Your task to perform on an android device: What's the weather going to be this weekend? Image 0: 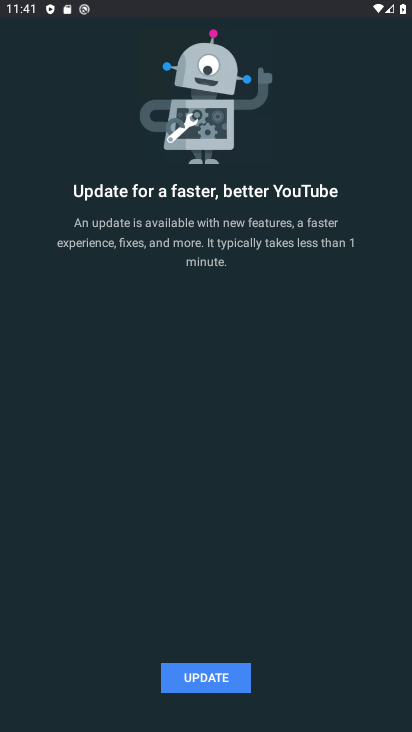
Step 0: press home button
Your task to perform on an android device: What's the weather going to be this weekend? Image 1: 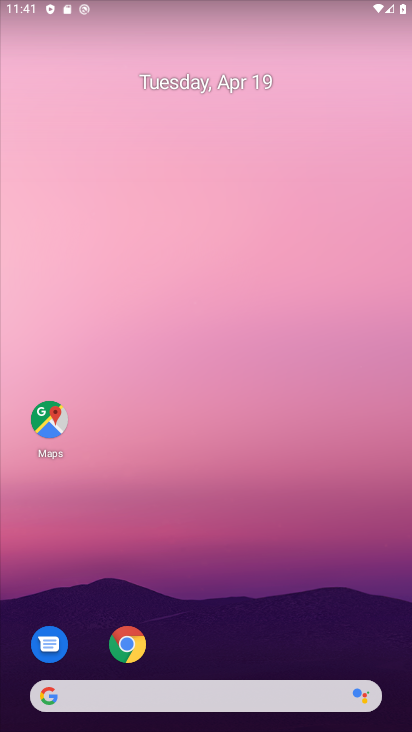
Step 1: click (312, 694)
Your task to perform on an android device: What's the weather going to be this weekend? Image 2: 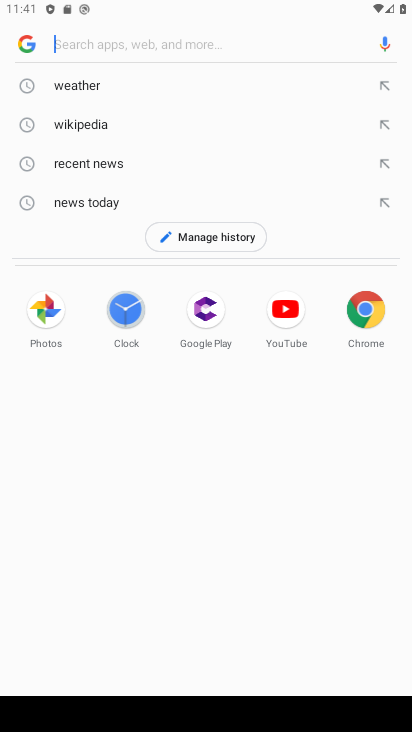
Step 2: click (106, 87)
Your task to perform on an android device: What's the weather going to be this weekend? Image 3: 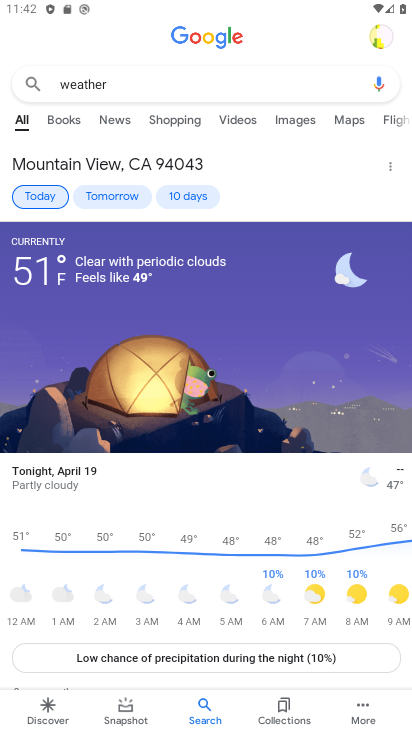
Step 3: click (186, 187)
Your task to perform on an android device: What's the weather going to be this weekend? Image 4: 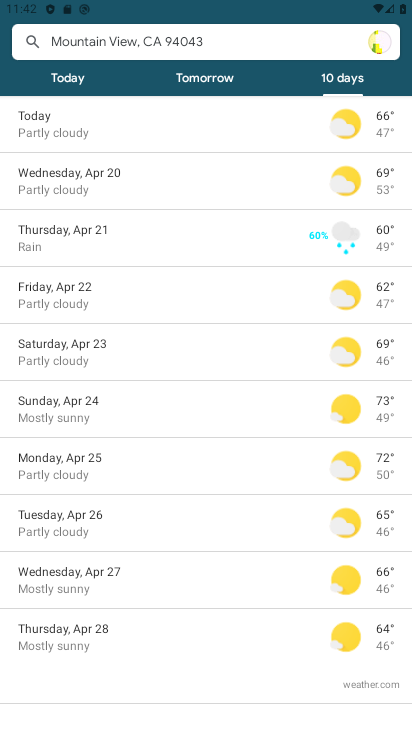
Step 4: click (112, 344)
Your task to perform on an android device: What's the weather going to be this weekend? Image 5: 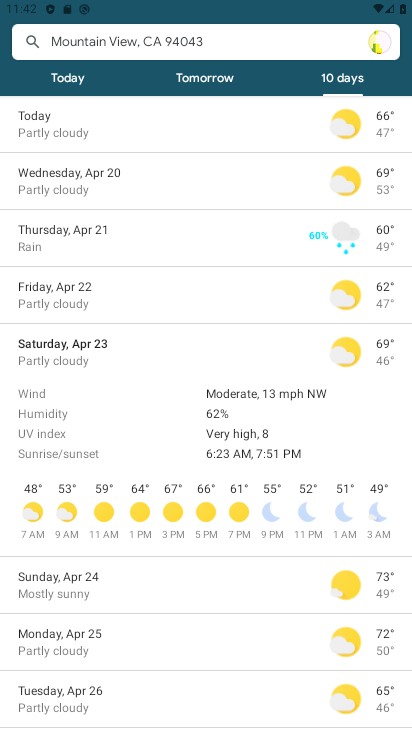
Step 5: task complete